Your task to perform on an android device: all mails in gmail Image 0: 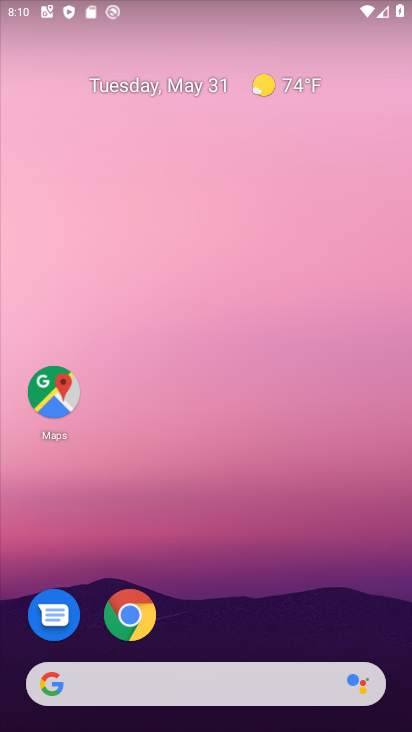
Step 0: drag from (207, 675) to (373, 85)
Your task to perform on an android device: all mails in gmail Image 1: 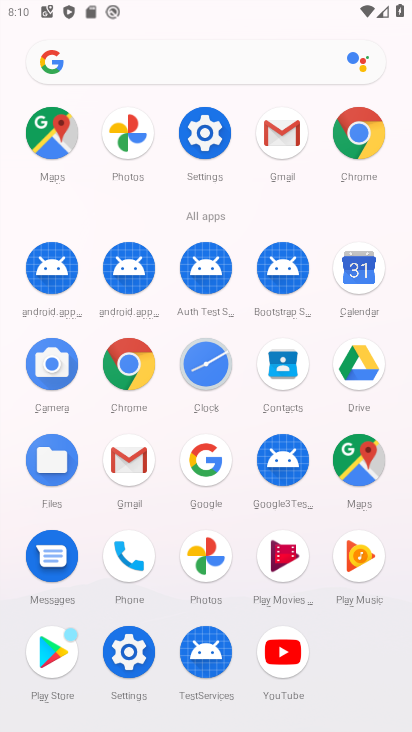
Step 1: click (288, 140)
Your task to perform on an android device: all mails in gmail Image 2: 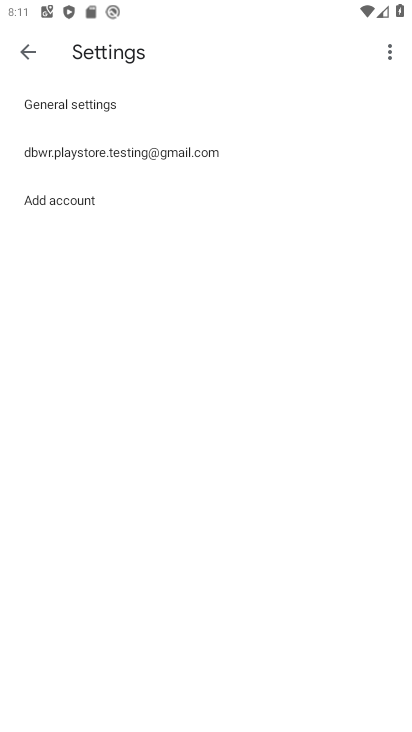
Step 2: click (31, 52)
Your task to perform on an android device: all mails in gmail Image 3: 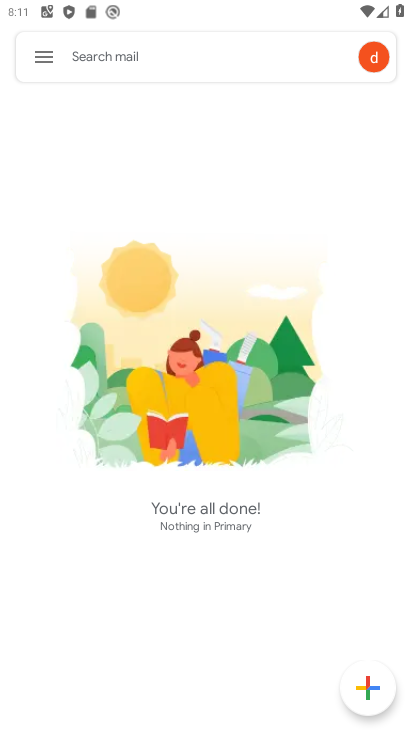
Step 3: click (41, 58)
Your task to perform on an android device: all mails in gmail Image 4: 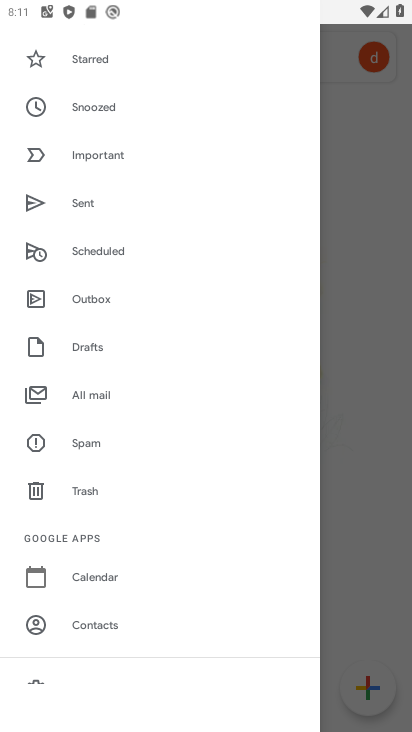
Step 4: click (89, 393)
Your task to perform on an android device: all mails in gmail Image 5: 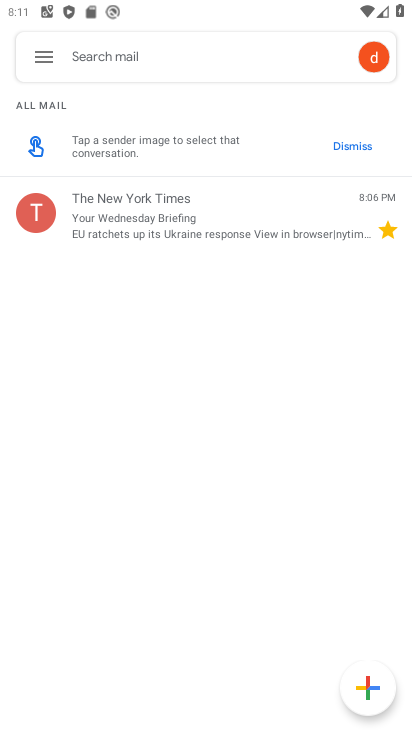
Step 5: task complete